Your task to perform on an android device: Show me popular videos on Youtube Image 0: 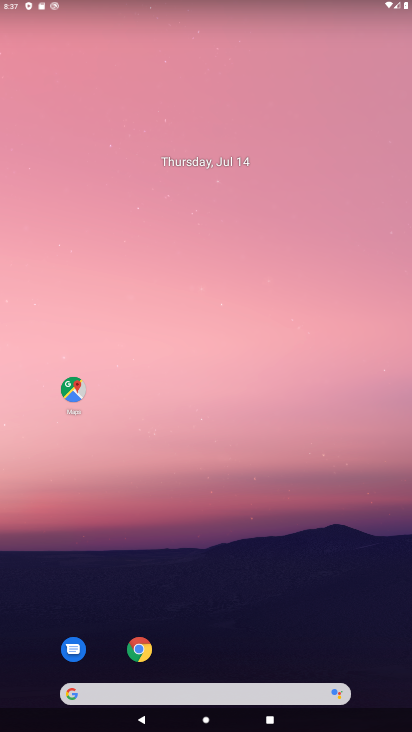
Step 0: drag from (208, 648) to (219, 87)
Your task to perform on an android device: Show me popular videos on Youtube Image 1: 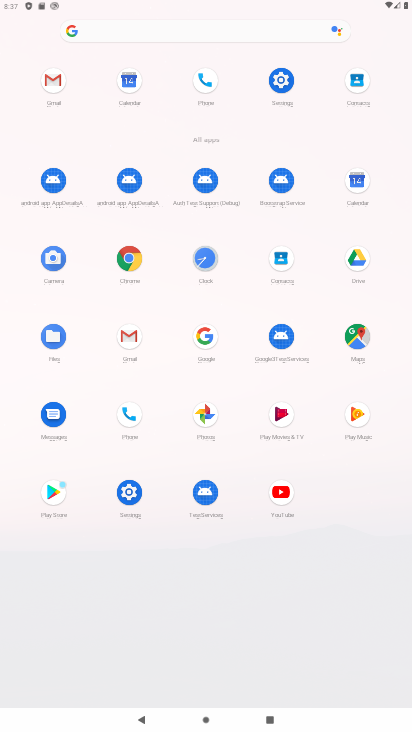
Step 1: click (279, 491)
Your task to perform on an android device: Show me popular videos on Youtube Image 2: 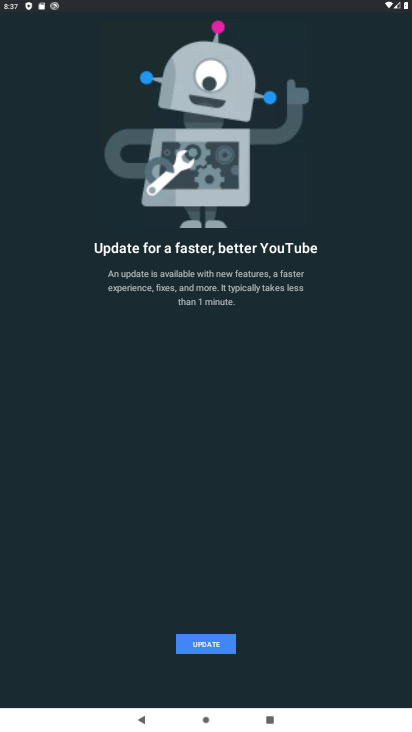
Step 2: click (198, 653)
Your task to perform on an android device: Show me popular videos on Youtube Image 3: 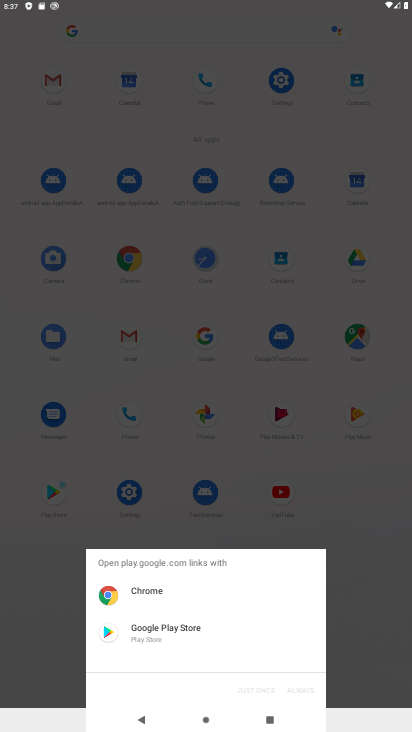
Step 3: click (131, 635)
Your task to perform on an android device: Show me popular videos on Youtube Image 4: 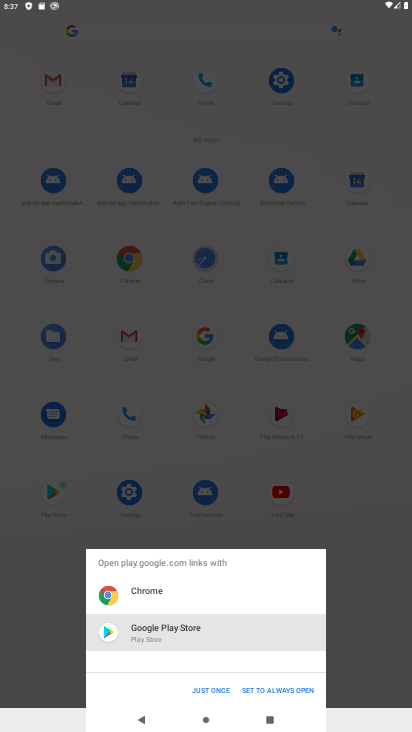
Step 4: click (203, 694)
Your task to perform on an android device: Show me popular videos on Youtube Image 5: 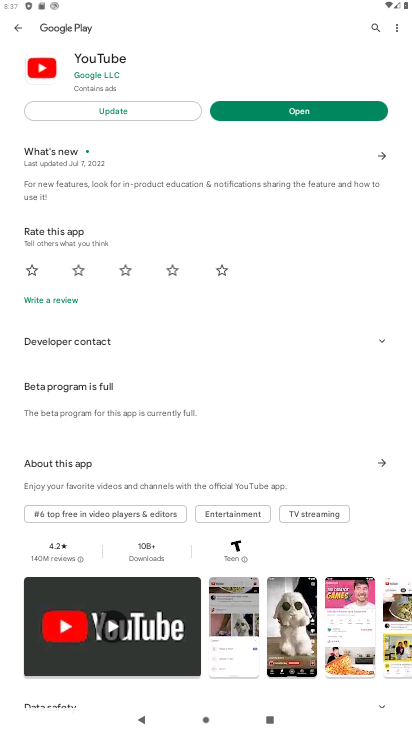
Step 5: click (86, 108)
Your task to perform on an android device: Show me popular videos on Youtube Image 6: 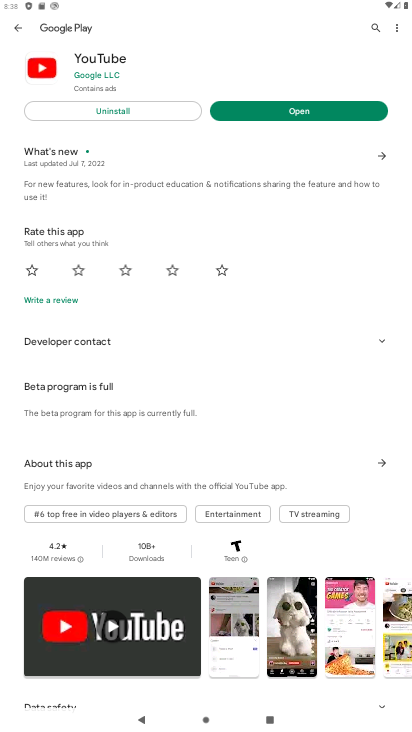
Step 6: click (307, 119)
Your task to perform on an android device: Show me popular videos on Youtube Image 7: 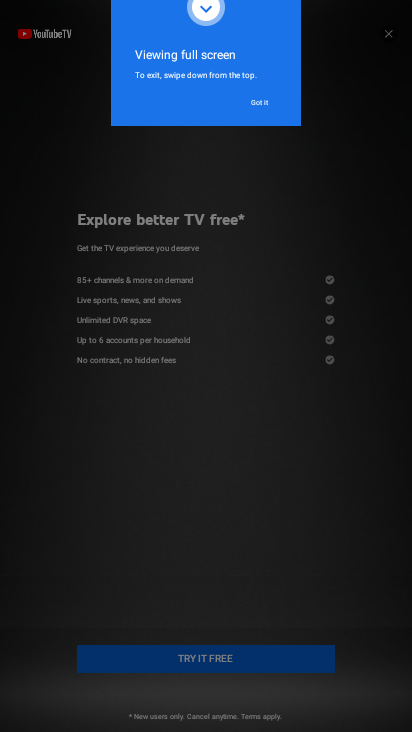
Step 7: click (253, 106)
Your task to perform on an android device: Show me popular videos on Youtube Image 8: 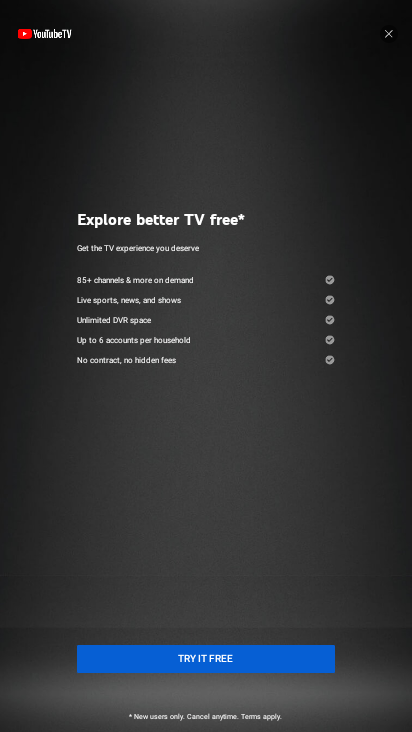
Step 8: click (388, 40)
Your task to perform on an android device: Show me popular videos on Youtube Image 9: 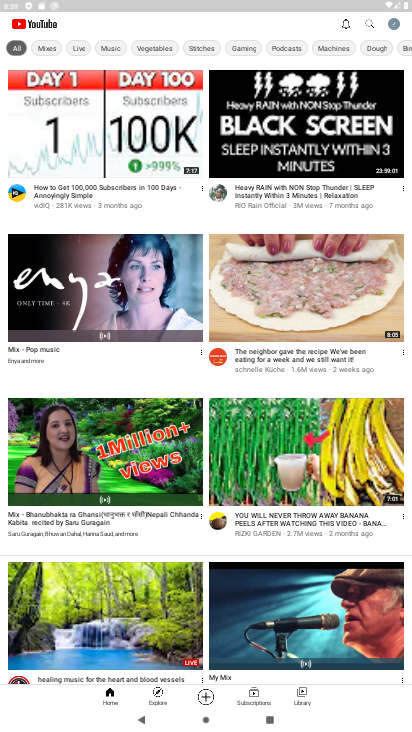
Step 9: click (368, 22)
Your task to perform on an android device: Show me popular videos on Youtube Image 10: 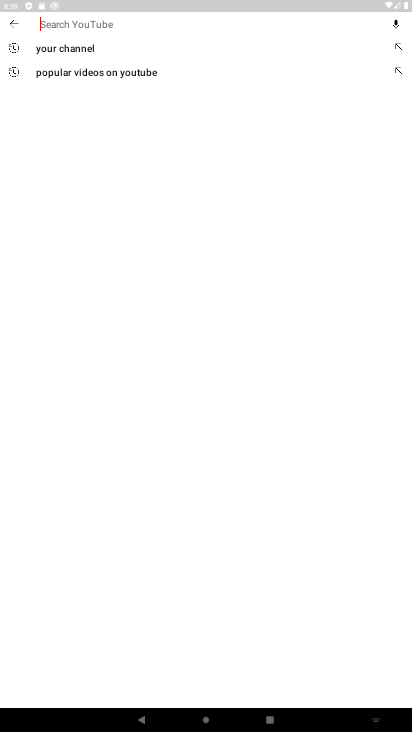
Step 10: type "popular videos"
Your task to perform on an android device: Show me popular videos on Youtube Image 11: 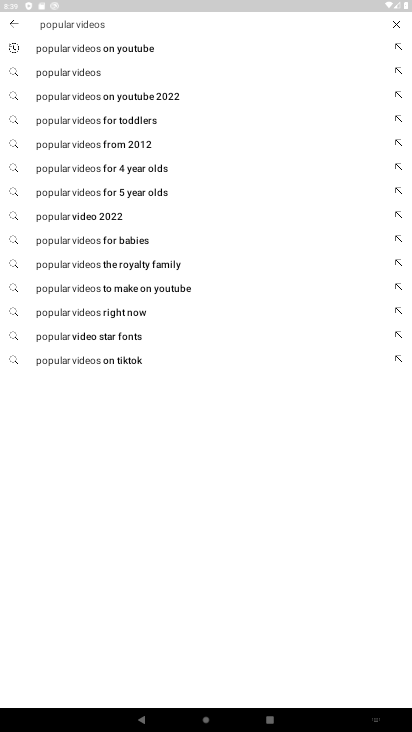
Step 11: click (105, 73)
Your task to perform on an android device: Show me popular videos on Youtube Image 12: 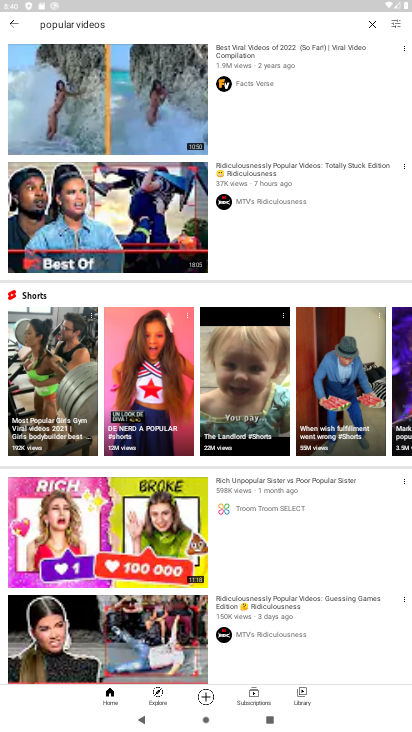
Step 12: task complete